Your task to perform on an android device: Open Google Chrome and open the bookmarks view Image 0: 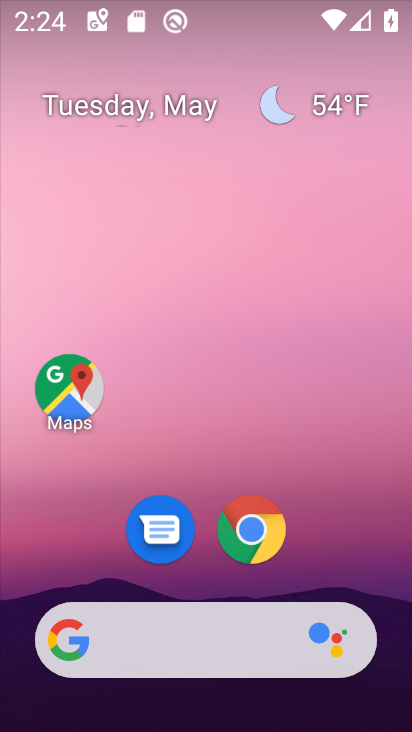
Step 0: drag from (325, 571) to (325, 164)
Your task to perform on an android device: Open Google Chrome and open the bookmarks view Image 1: 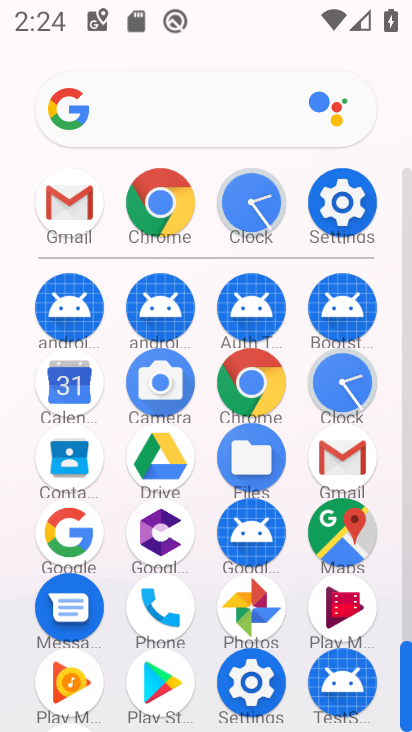
Step 1: click (249, 377)
Your task to perform on an android device: Open Google Chrome and open the bookmarks view Image 2: 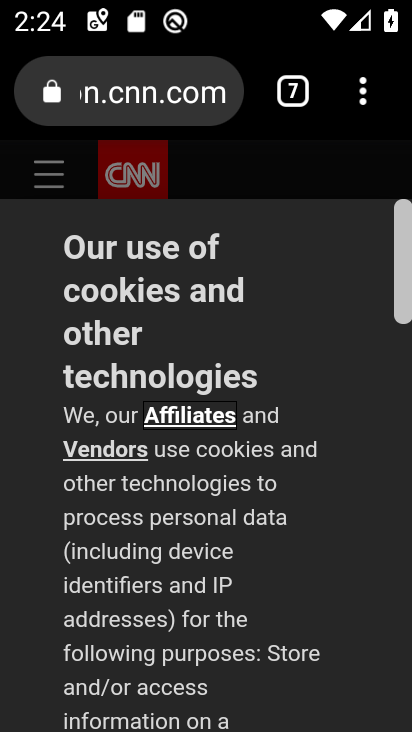
Step 2: click (364, 81)
Your task to perform on an android device: Open Google Chrome and open the bookmarks view Image 3: 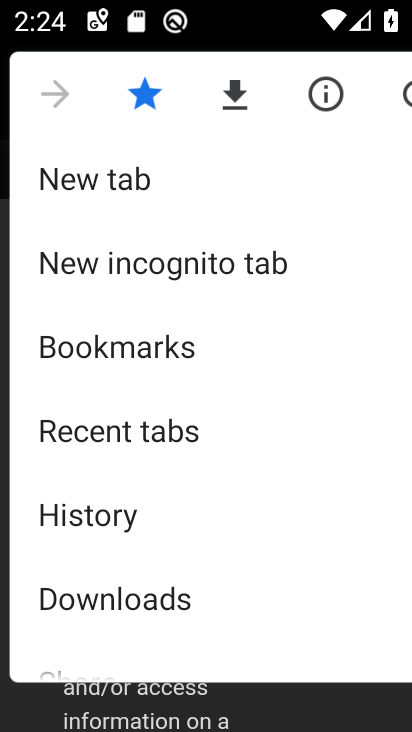
Step 3: click (146, 346)
Your task to perform on an android device: Open Google Chrome and open the bookmarks view Image 4: 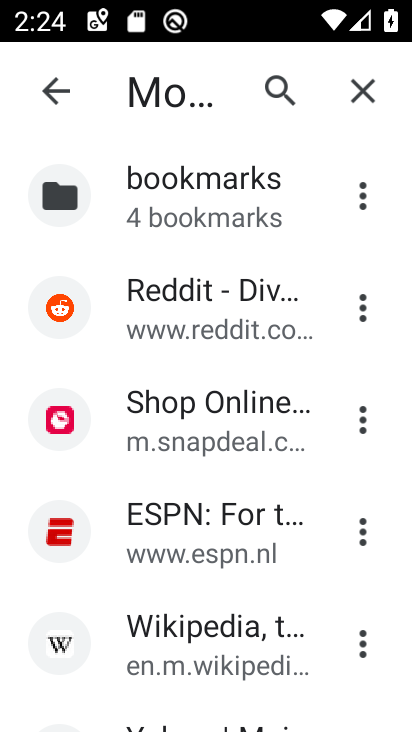
Step 4: task complete